Your task to perform on an android device: See recent photos Image 0: 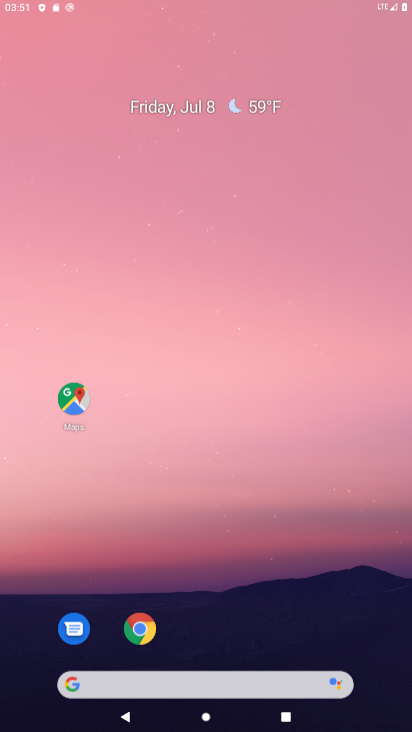
Step 0: press home button
Your task to perform on an android device: See recent photos Image 1: 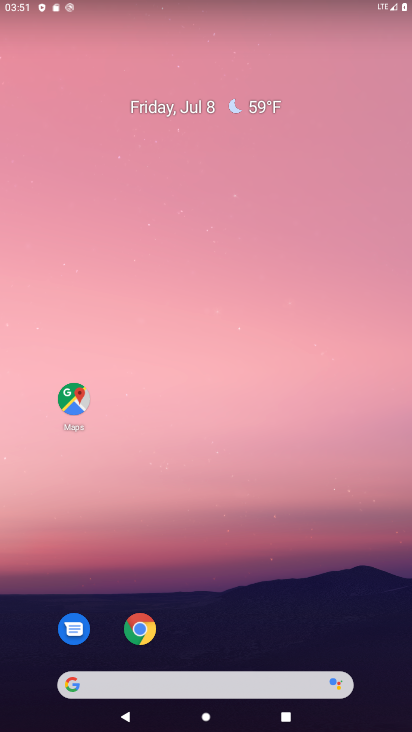
Step 1: drag from (231, 650) to (223, 32)
Your task to perform on an android device: See recent photos Image 2: 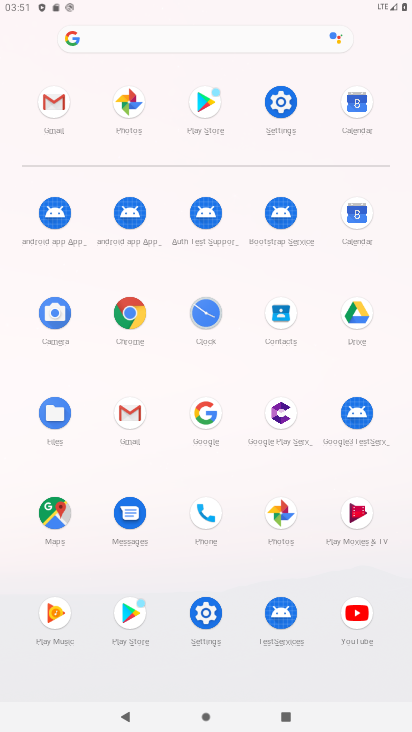
Step 2: click (281, 504)
Your task to perform on an android device: See recent photos Image 3: 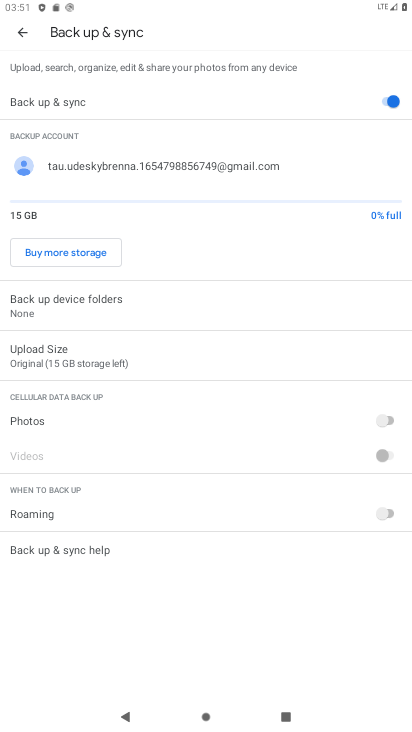
Step 3: click (22, 29)
Your task to perform on an android device: See recent photos Image 4: 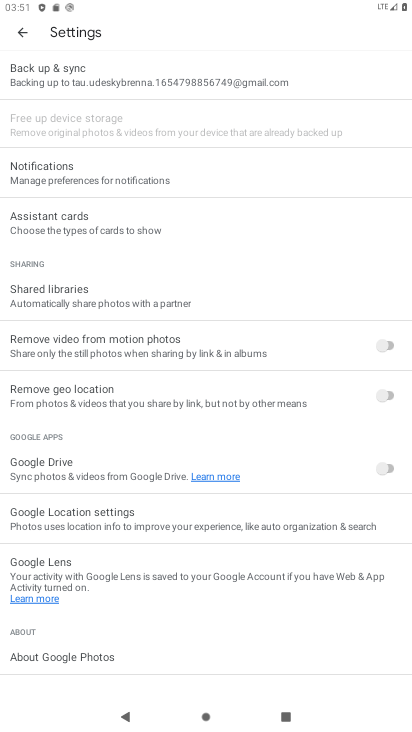
Step 4: click (22, 29)
Your task to perform on an android device: See recent photos Image 5: 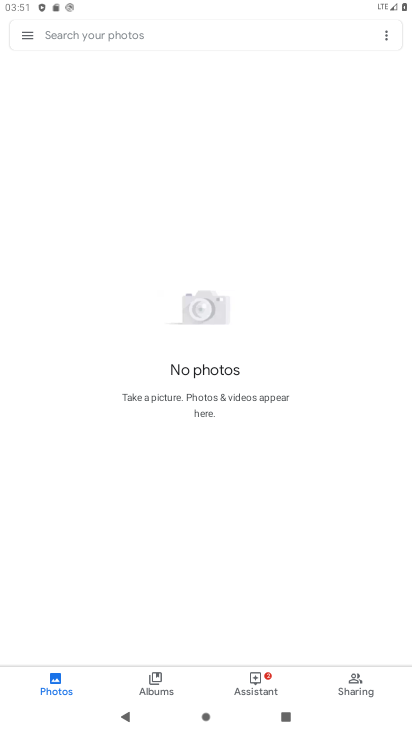
Step 5: task complete